Your task to perform on an android device: Go to battery settings Image 0: 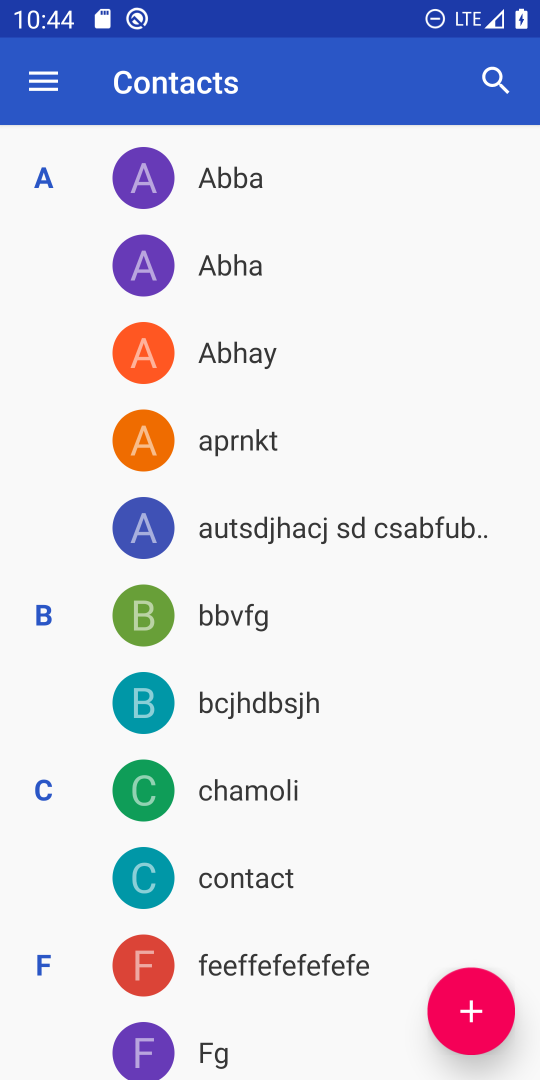
Step 0: press home button
Your task to perform on an android device: Go to battery settings Image 1: 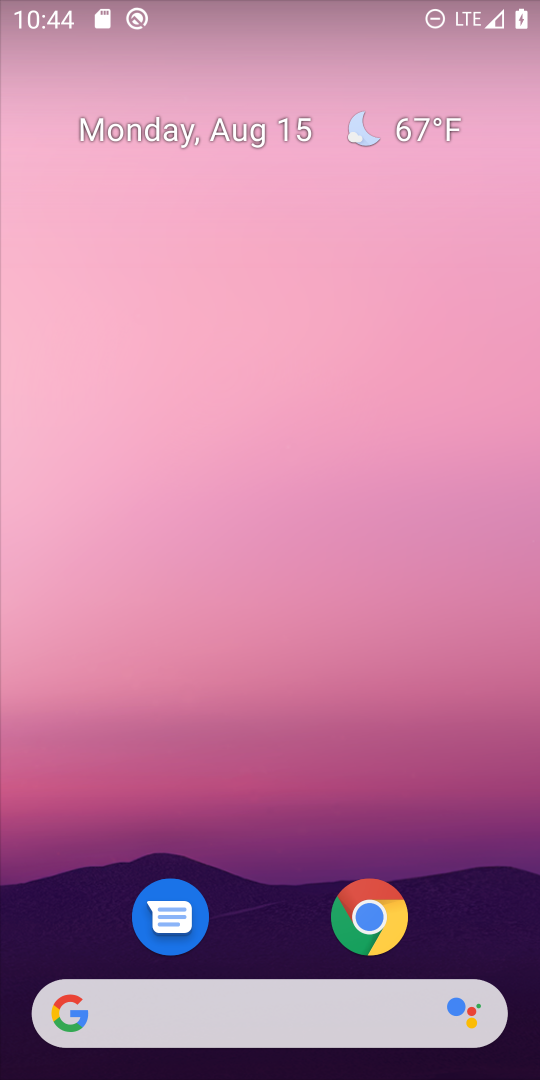
Step 1: drag from (339, 445) to (349, 28)
Your task to perform on an android device: Go to battery settings Image 2: 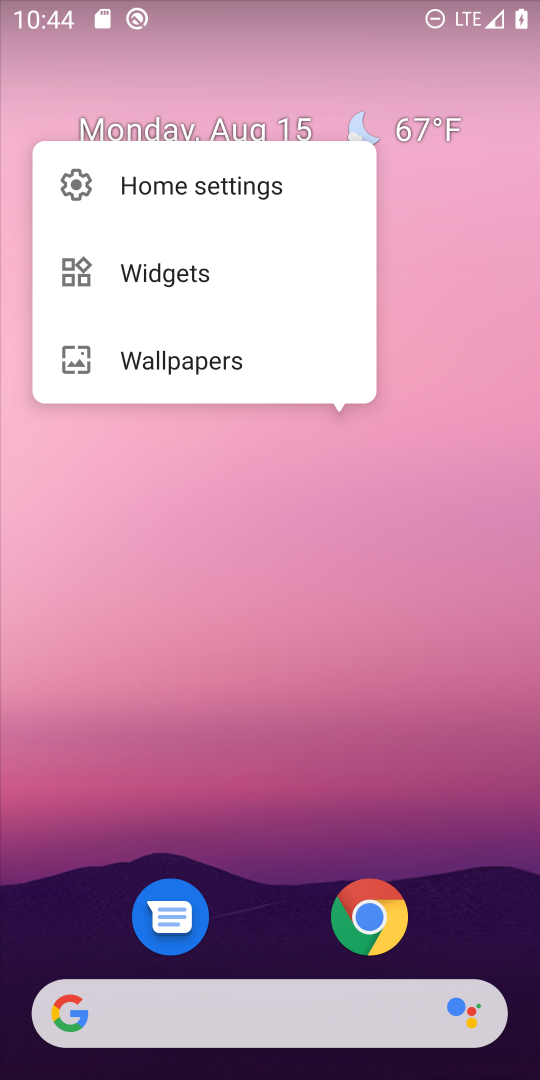
Step 2: click (286, 860)
Your task to perform on an android device: Go to battery settings Image 3: 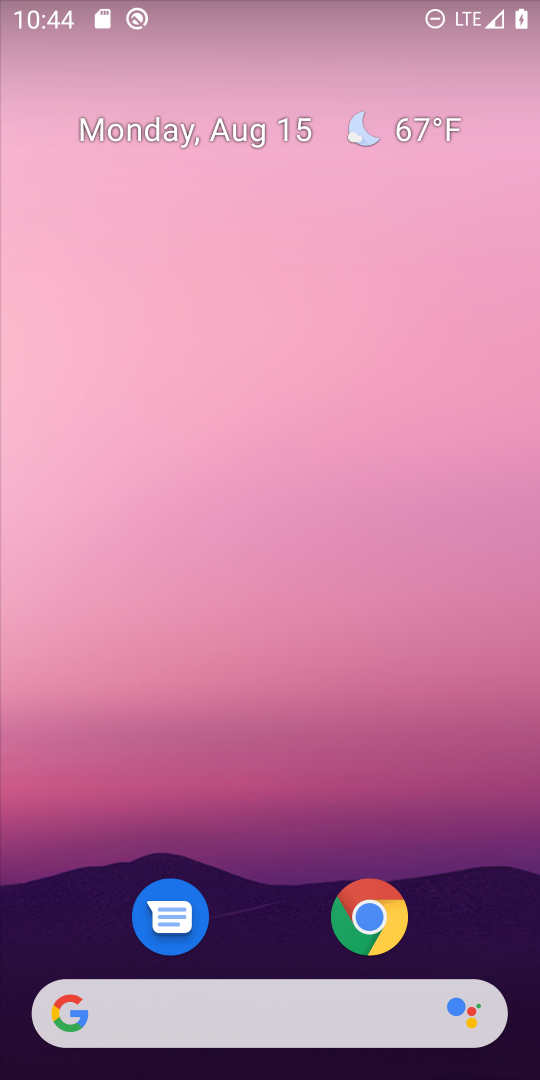
Step 3: drag from (277, 904) to (383, 18)
Your task to perform on an android device: Go to battery settings Image 4: 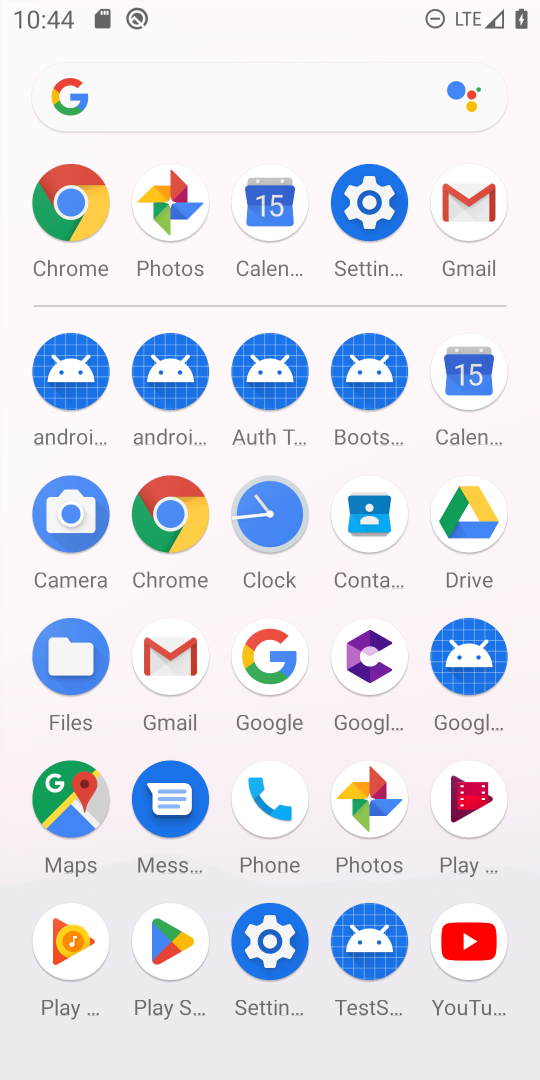
Step 4: click (377, 198)
Your task to perform on an android device: Go to battery settings Image 5: 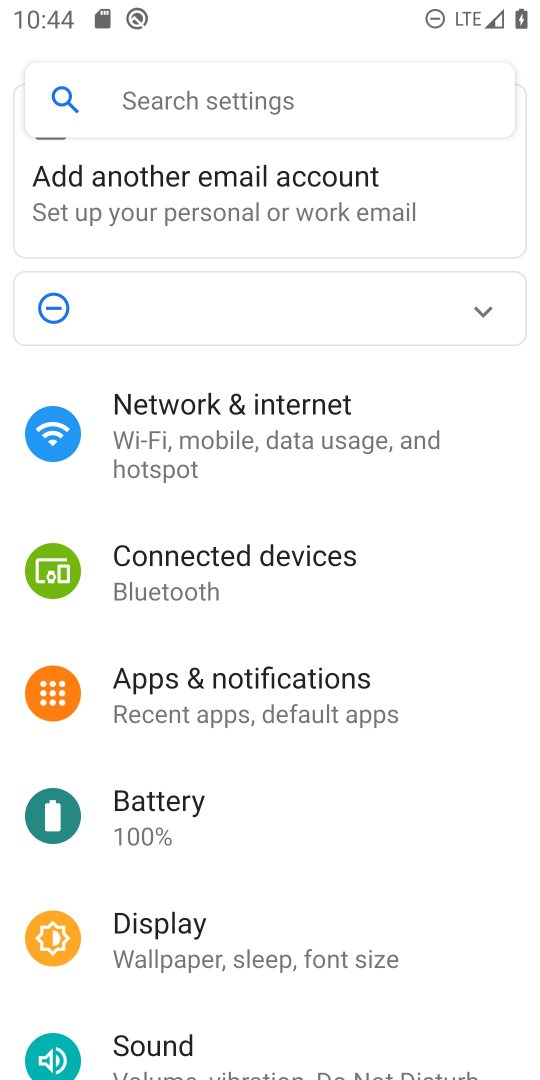
Step 5: click (184, 806)
Your task to perform on an android device: Go to battery settings Image 6: 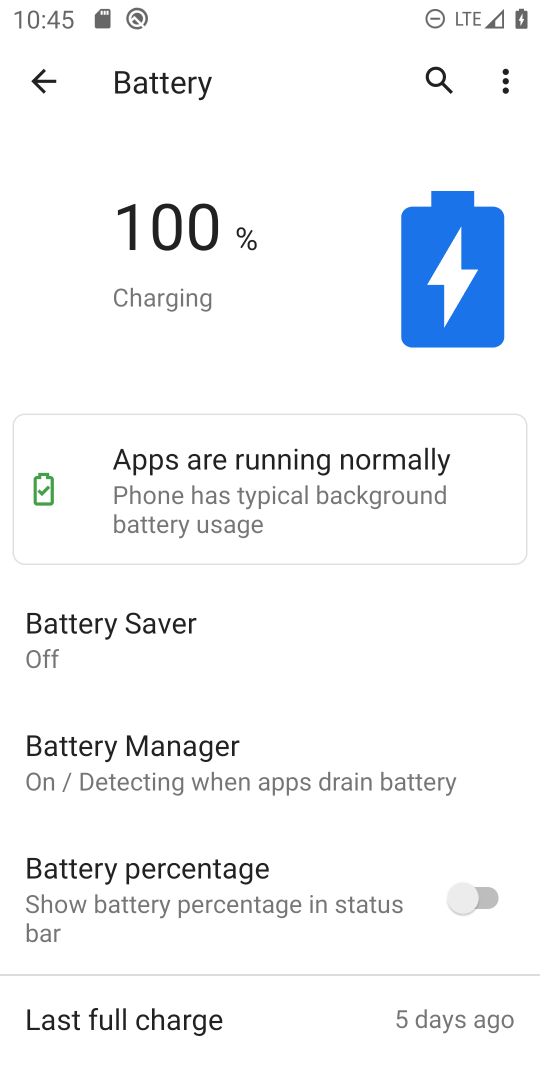
Step 6: task complete